Your task to perform on an android device: Open the map Image 0: 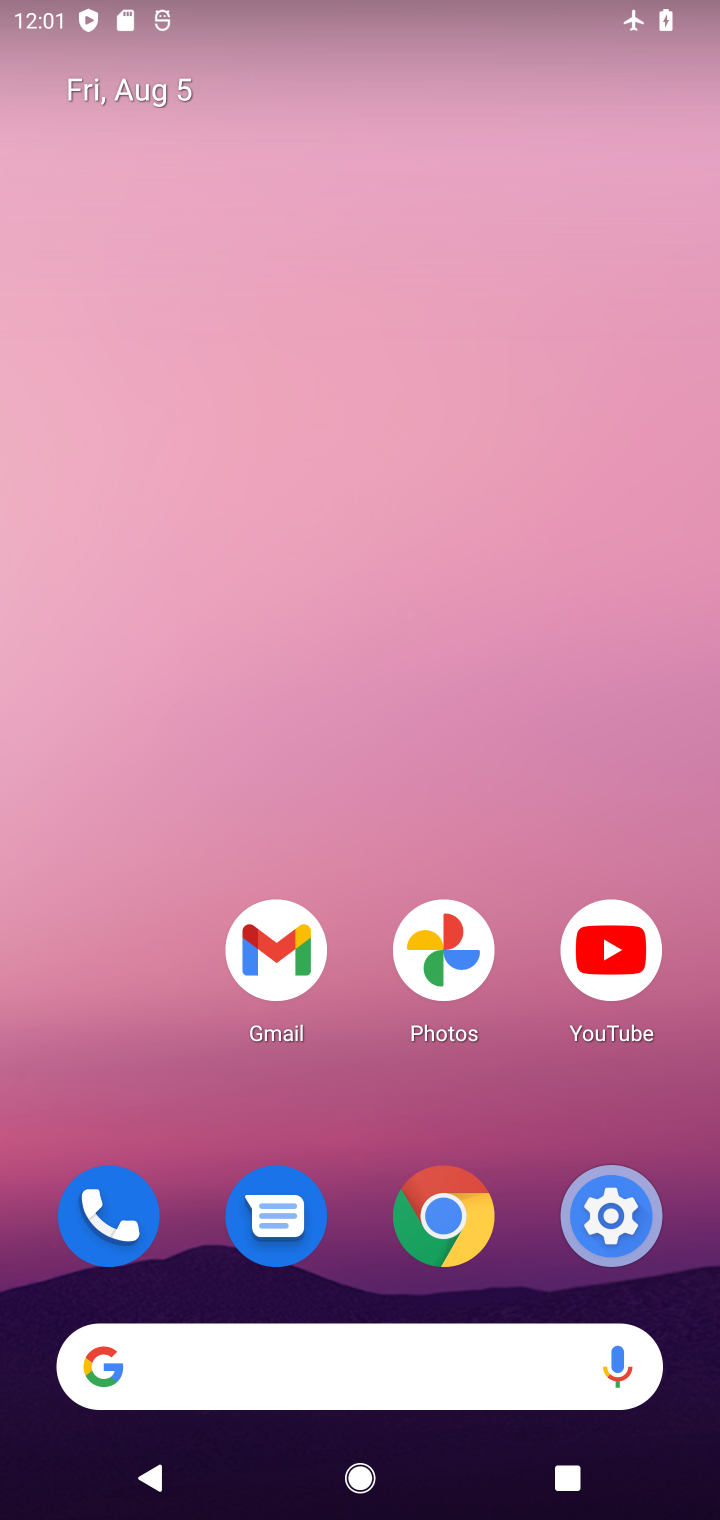
Step 0: drag from (502, 1338) to (442, 60)
Your task to perform on an android device: Open the map Image 1: 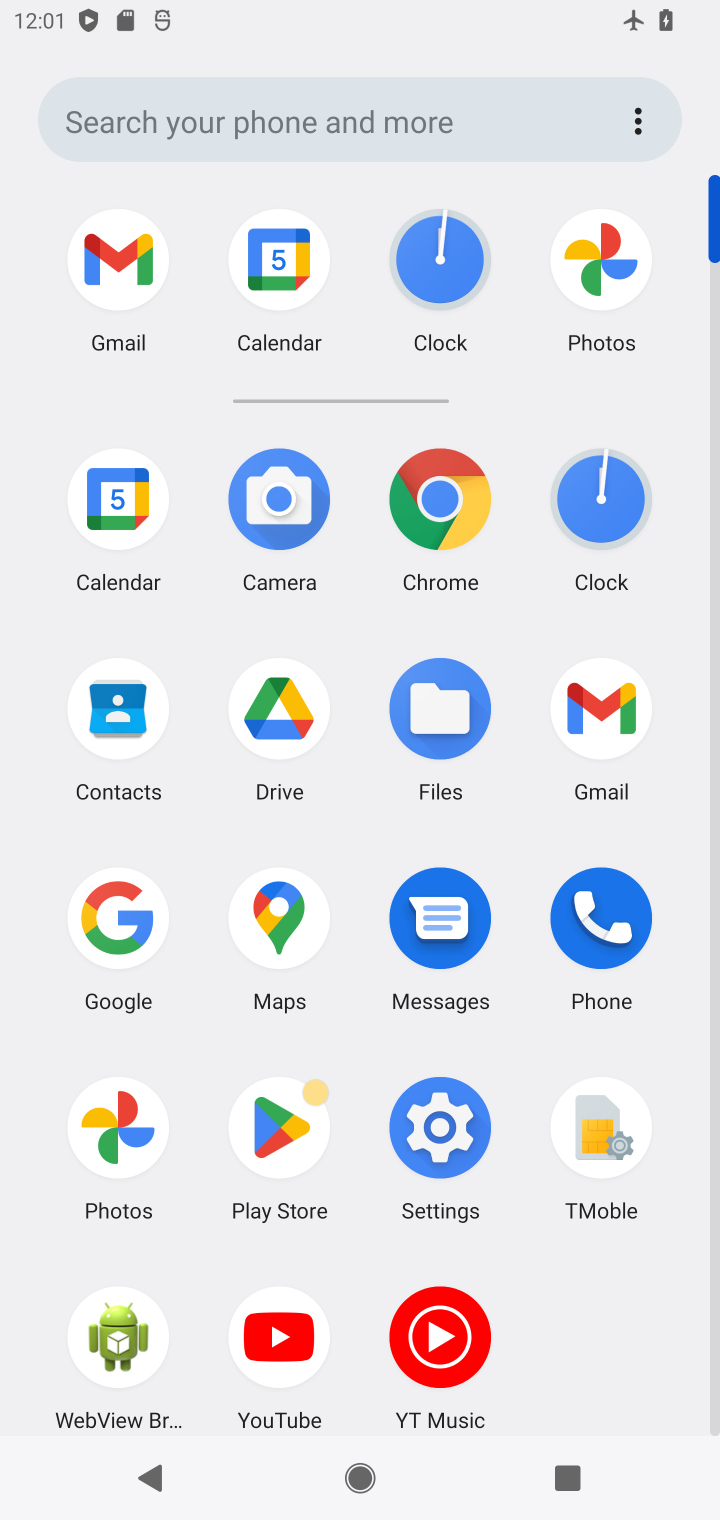
Step 1: click (278, 933)
Your task to perform on an android device: Open the map Image 2: 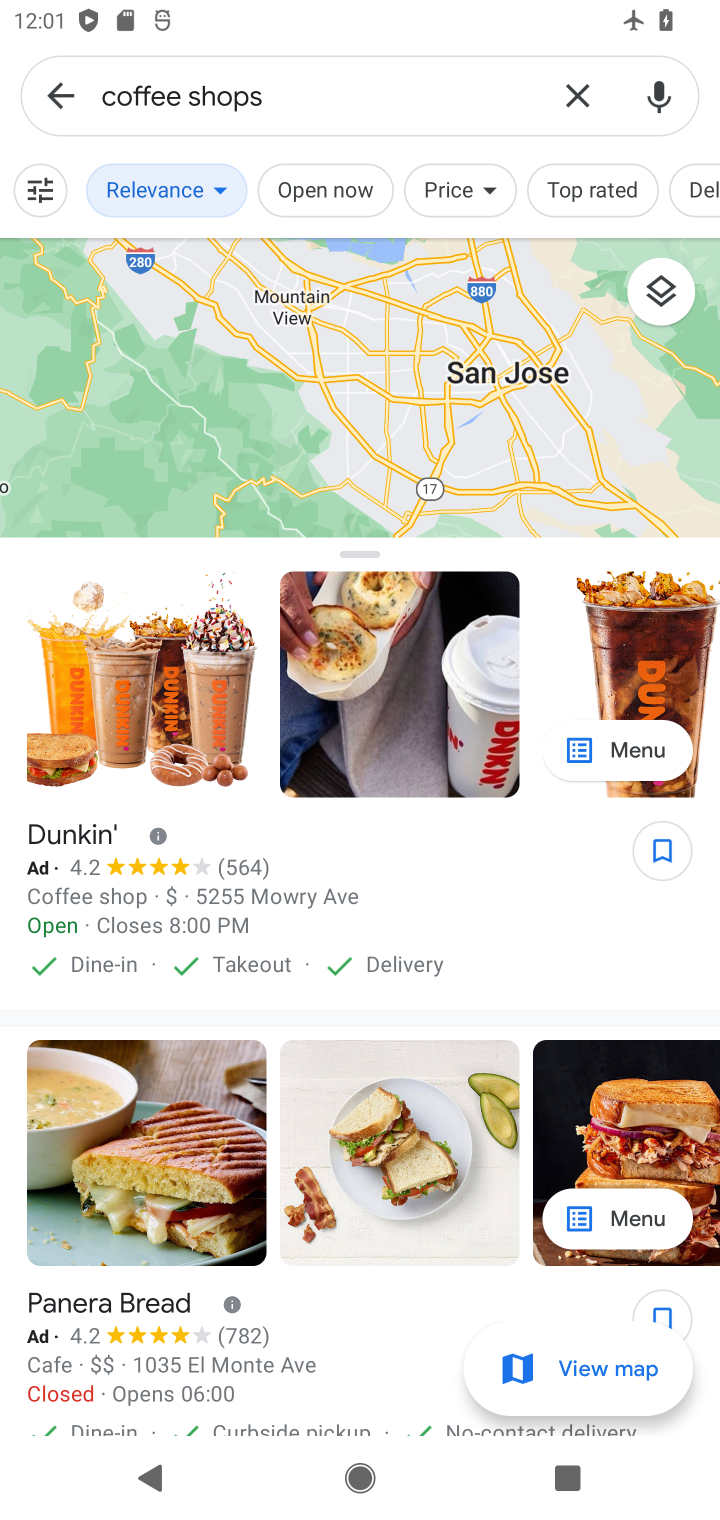
Step 2: task complete